Your task to perform on an android device: Search for 3d printer on AliExpress Image 0: 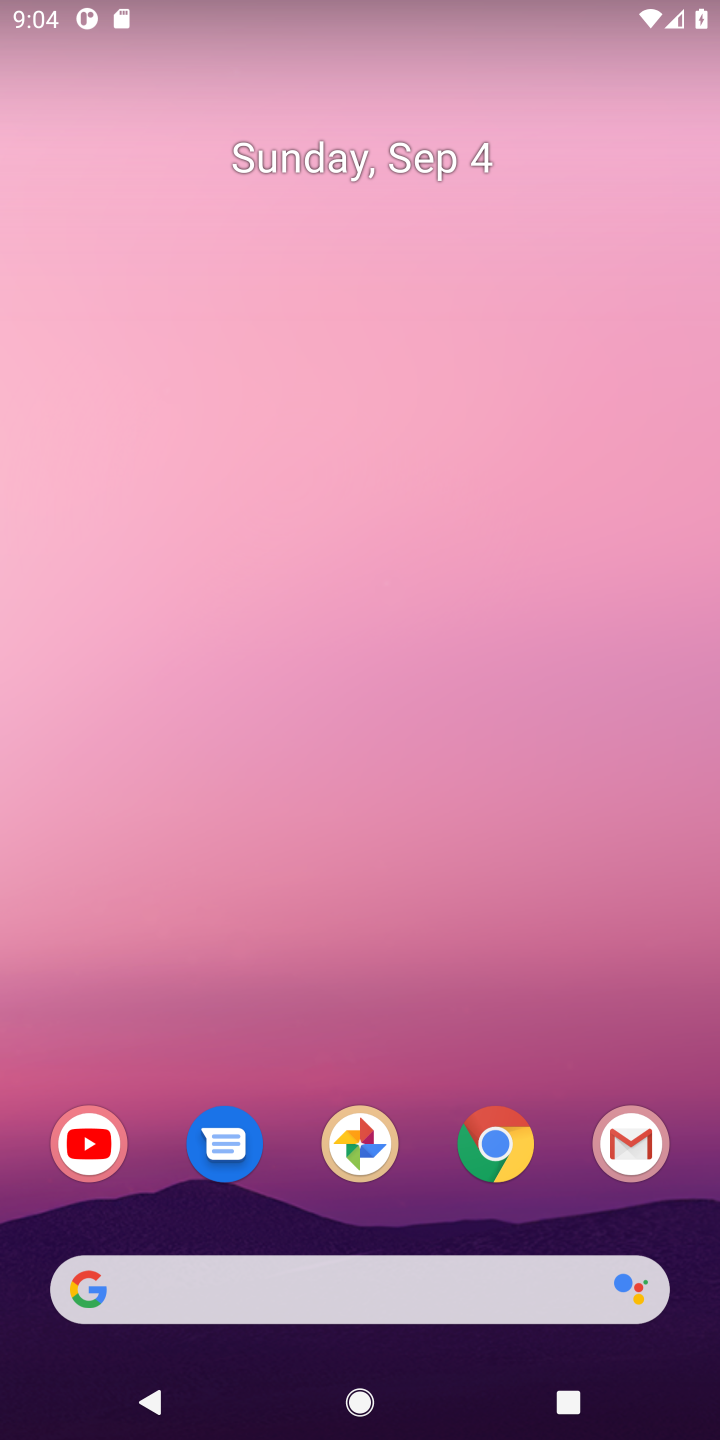
Step 0: press home button
Your task to perform on an android device: Search for 3d printer on AliExpress Image 1: 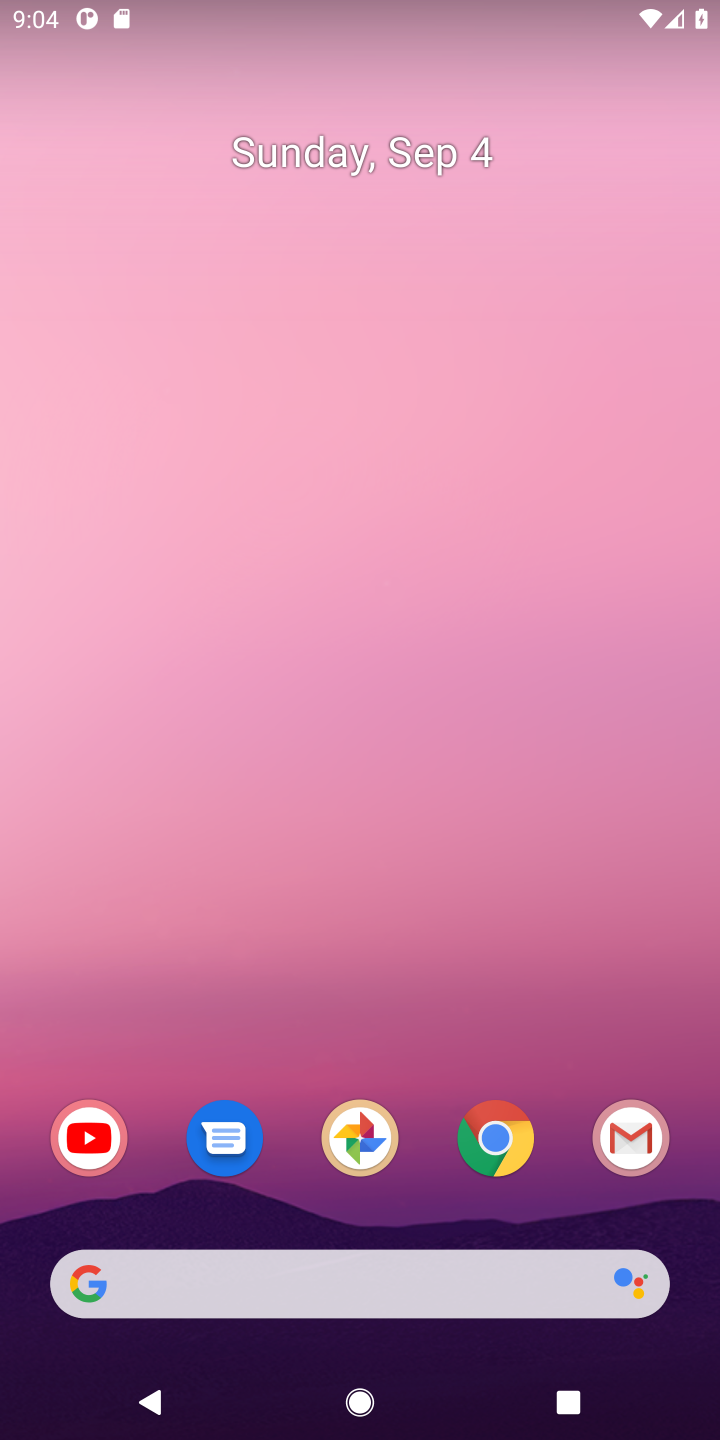
Step 1: drag from (426, 124) to (424, 48)
Your task to perform on an android device: Search for 3d printer on AliExpress Image 2: 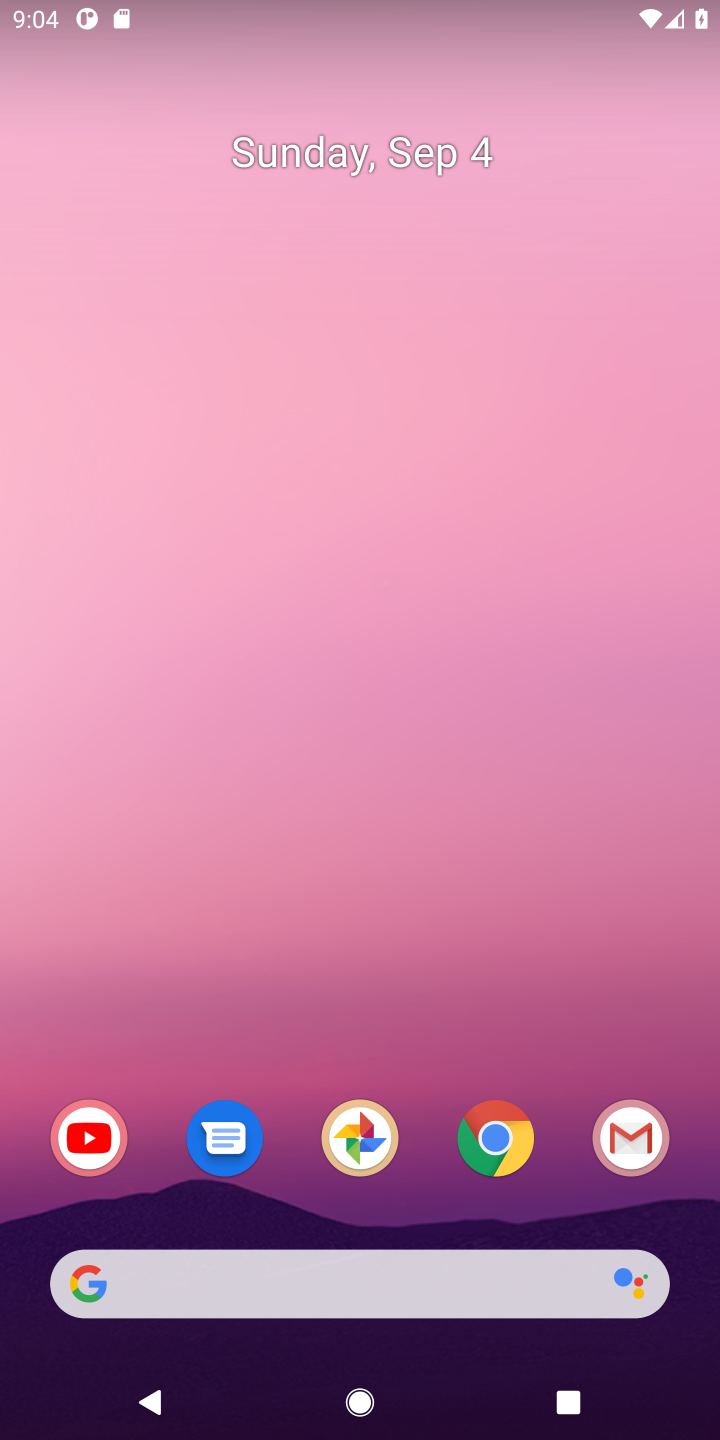
Step 2: drag from (434, 1073) to (546, 0)
Your task to perform on an android device: Search for 3d printer on AliExpress Image 3: 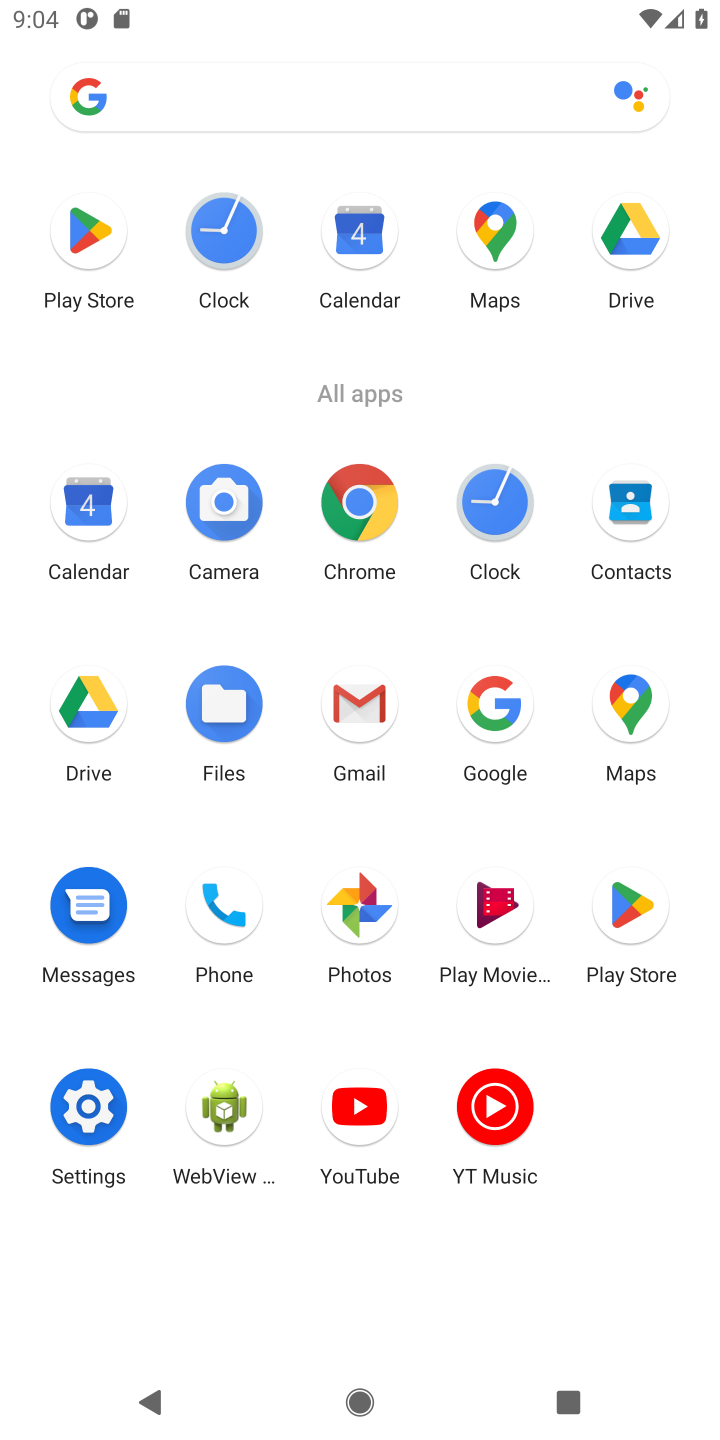
Step 3: click (352, 491)
Your task to perform on an android device: Search for 3d printer on AliExpress Image 4: 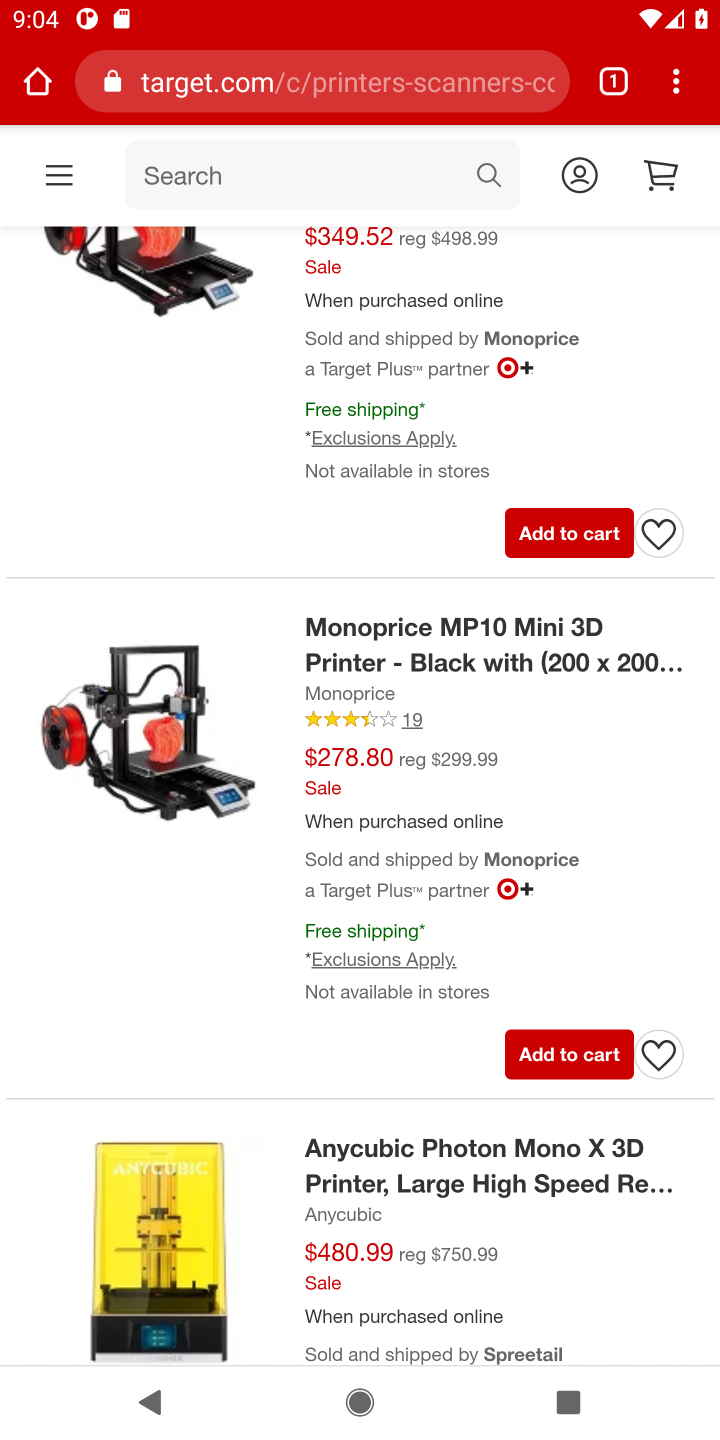
Step 4: click (612, 79)
Your task to perform on an android device: Search for 3d printer on AliExpress Image 5: 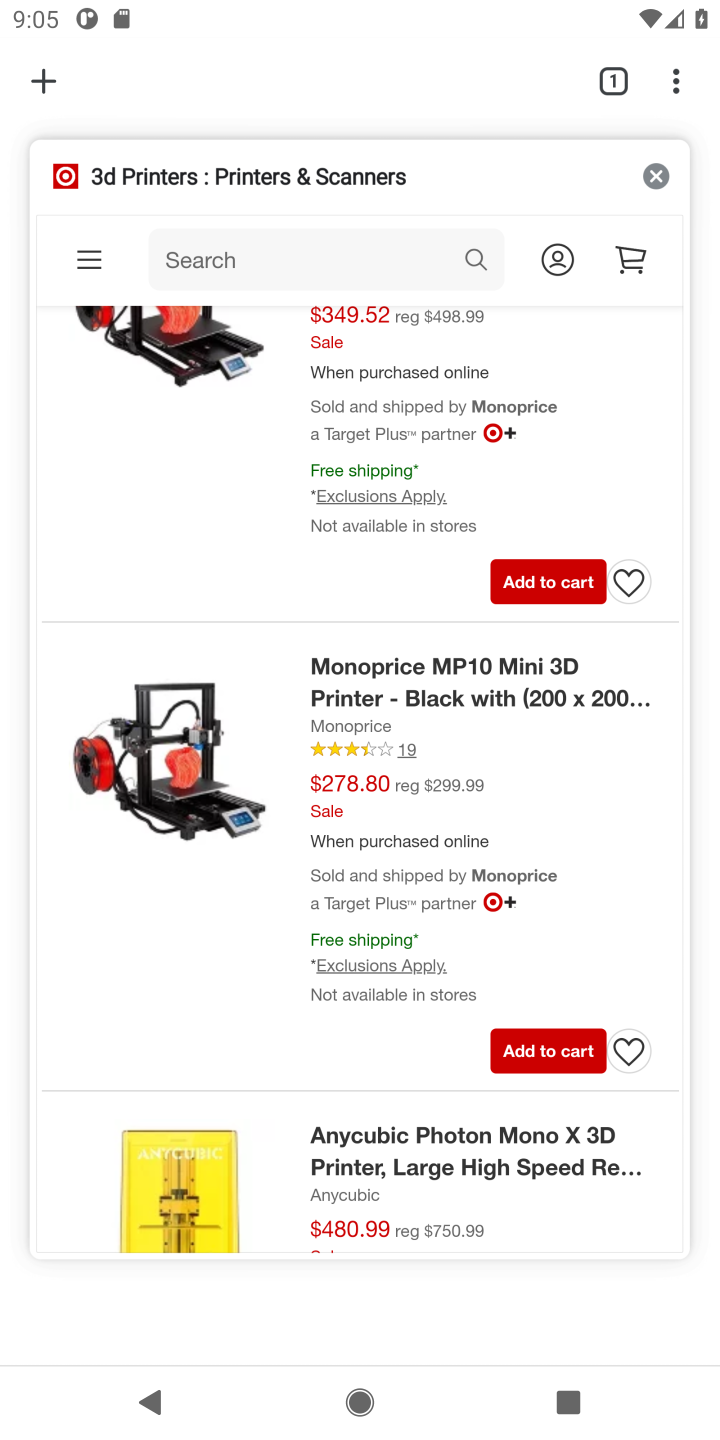
Step 5: click (51, 82)
Your task to perform on an android device: Search for 3d printer on AliExpress Image 6: 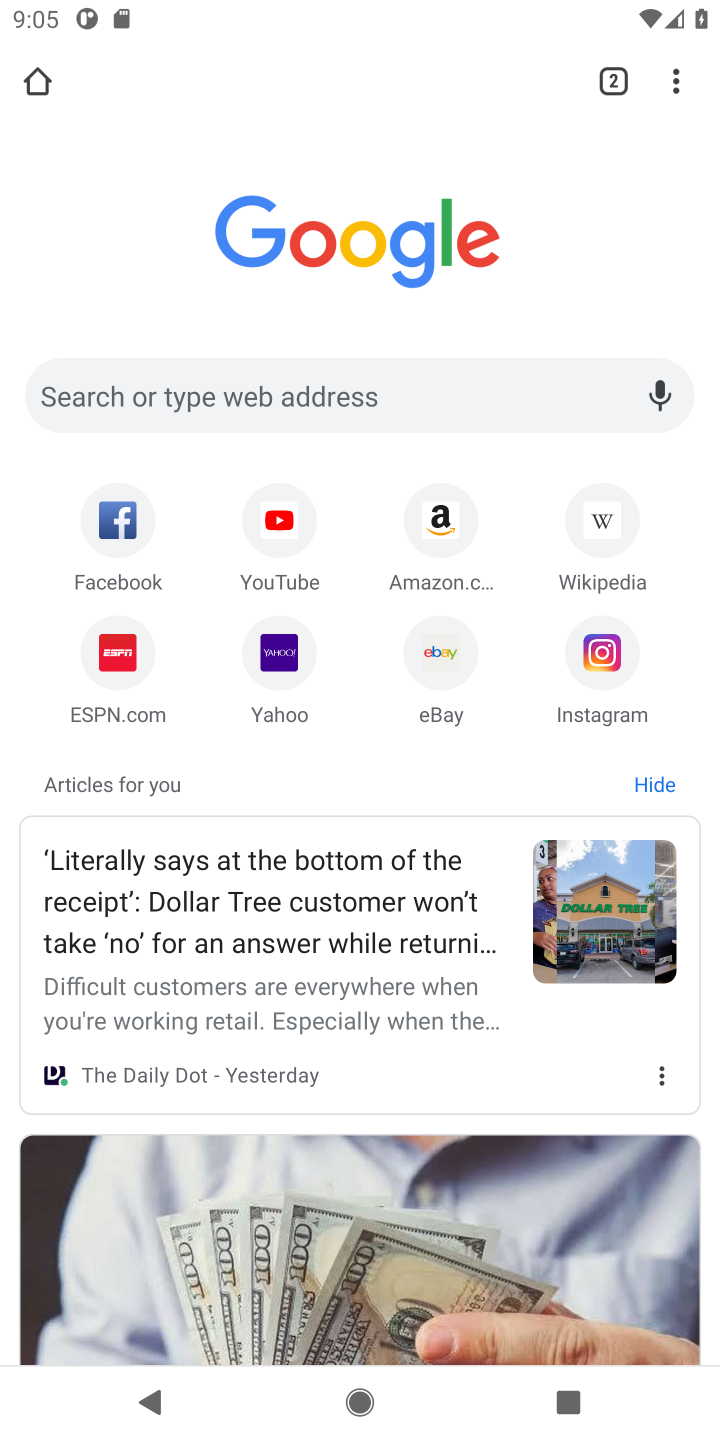
Step 6: click (201, 379)
Your task to perform on an android device: Search for 3d printer on AliExpress Image 7: 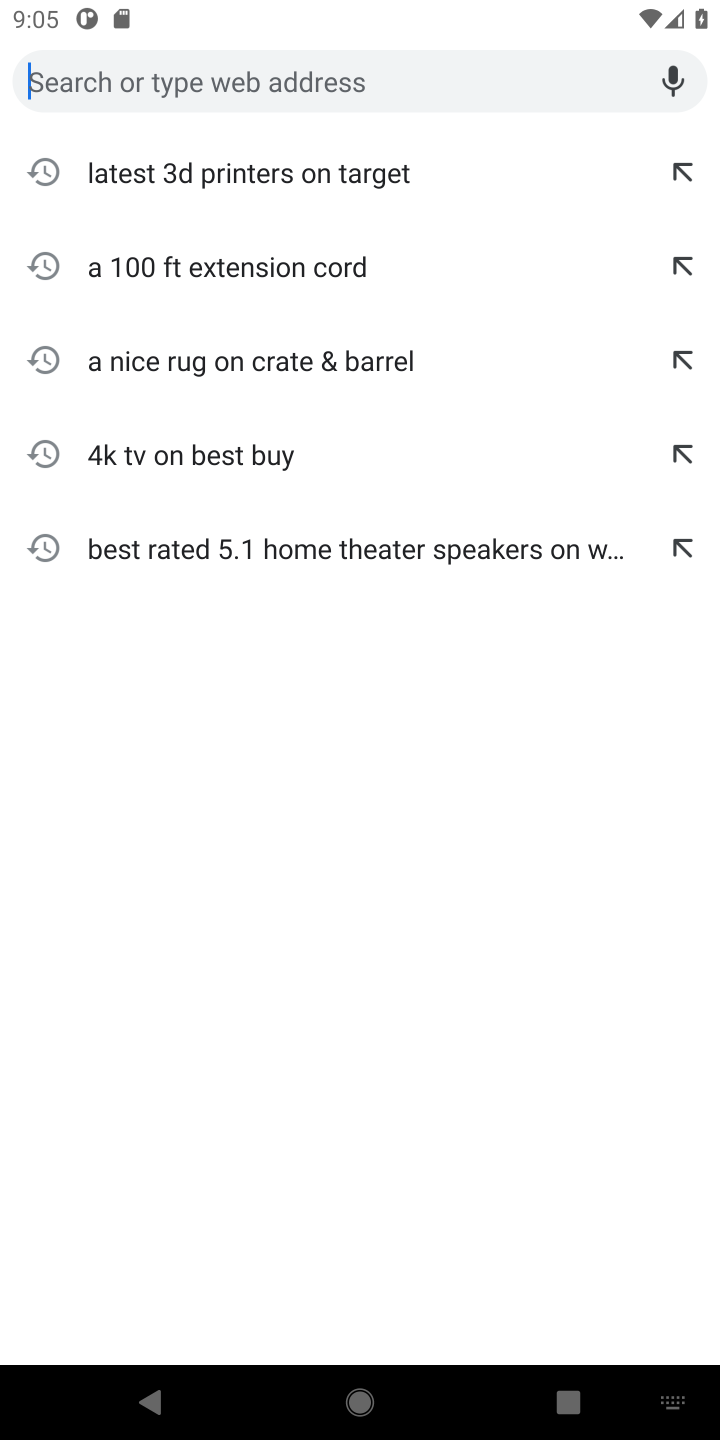
Step 7: click (157, 66)
Your task to perform on an android device: Search for 3d printer on AliExpress Image 8: 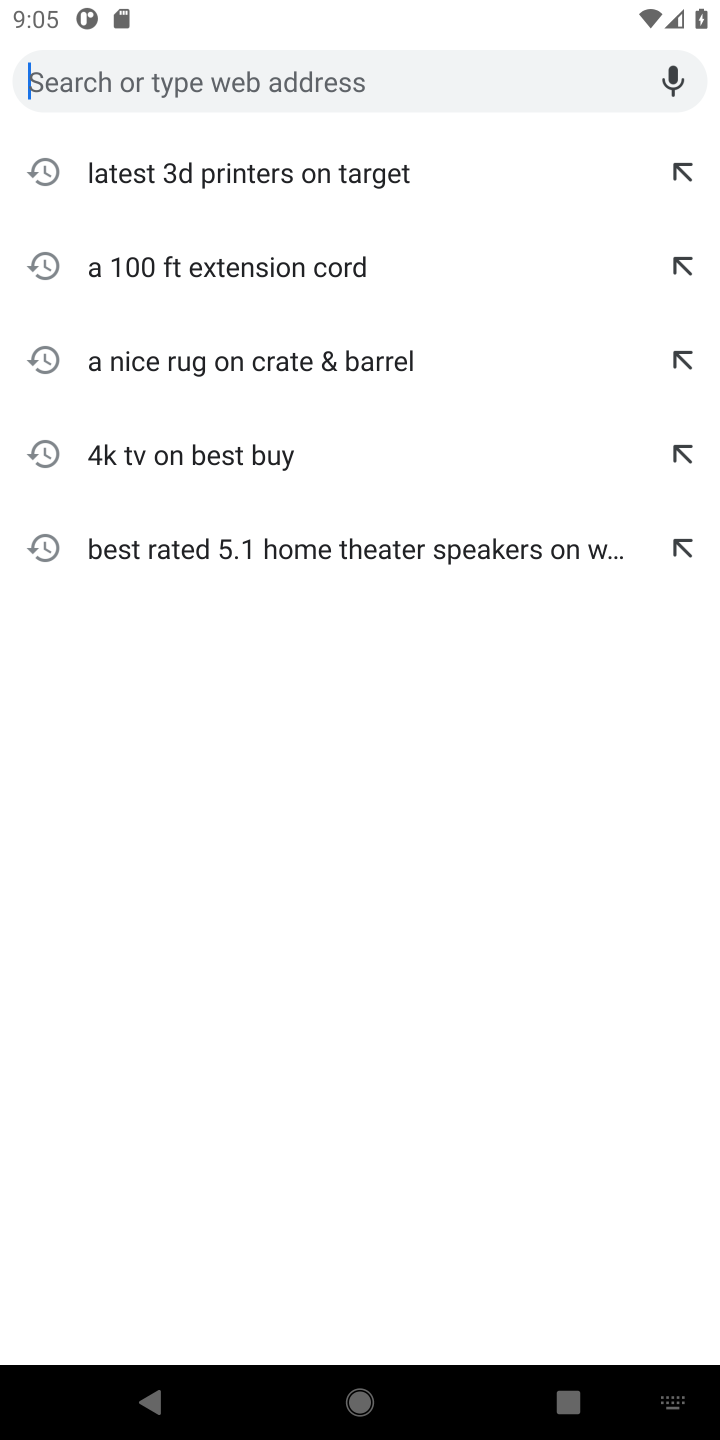
Step 8: type "3d printer on AliExpress"
Your task to perform on an android device: Search for 3d printer on AliExpress Image 9: 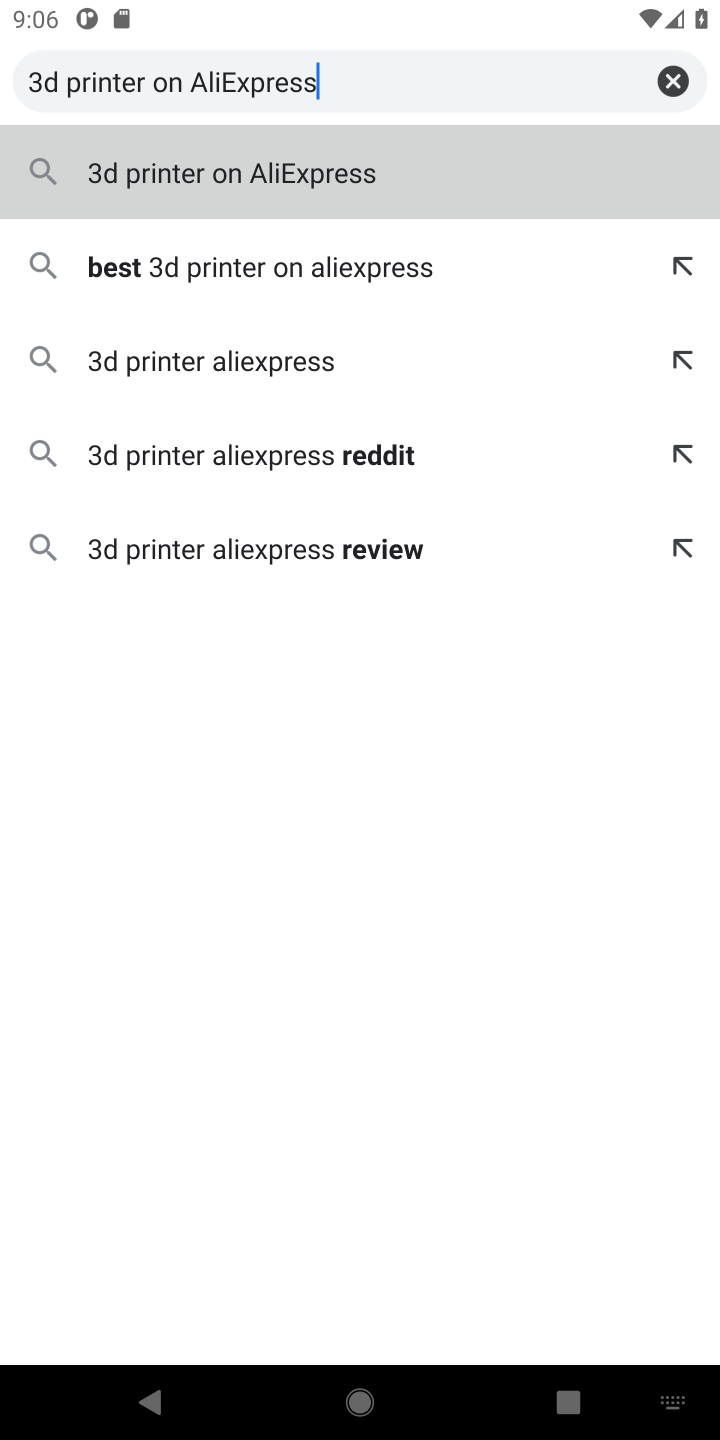
Step 9: click (281, 169)
Your task to perform on an android device: Search for 3d printer on AliExpress Image 10: 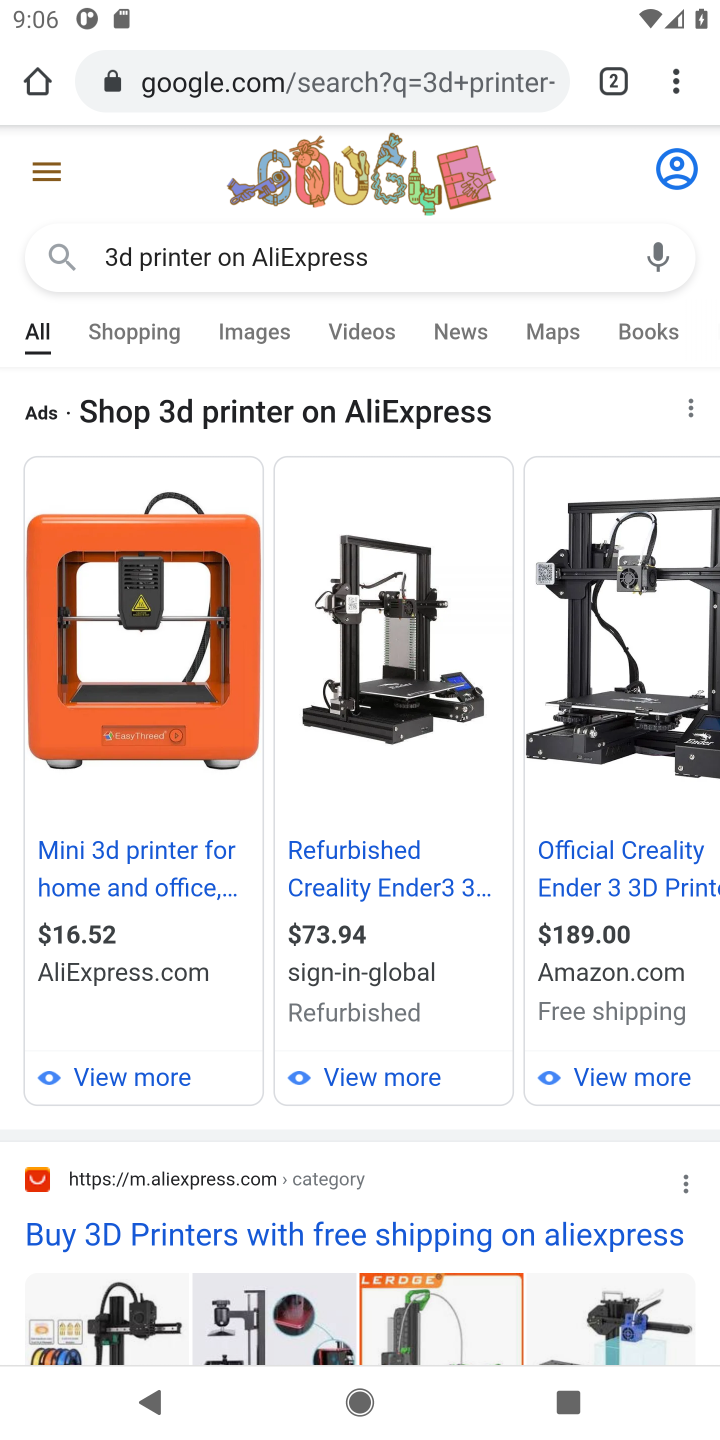
Step 10: click (460, 1239)
Your task to perform on an android device: Search for 3d printer on AliExpress Image 11: 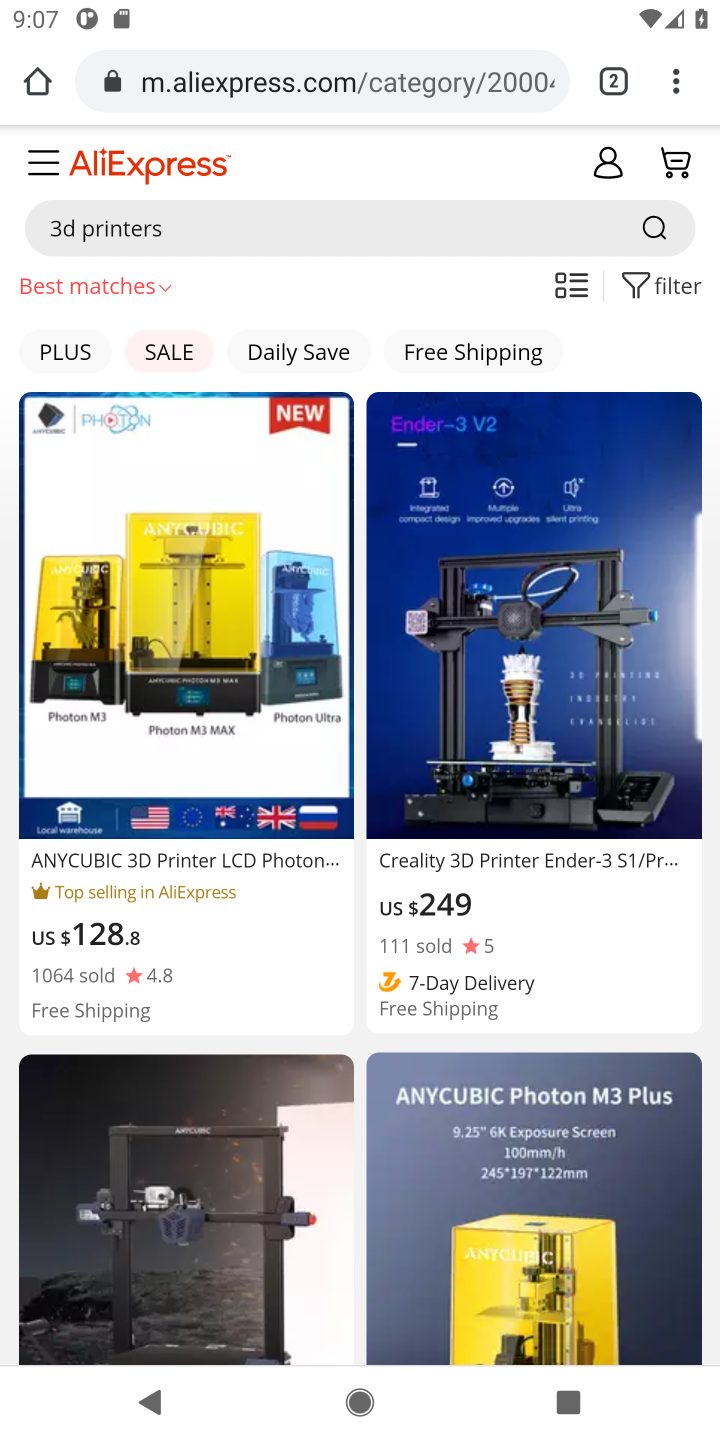
Step 11: drag from (352, 1020) to (342, 522)
Your task to perform on an android device: Search for 3d printer on AliExpress Image 12: 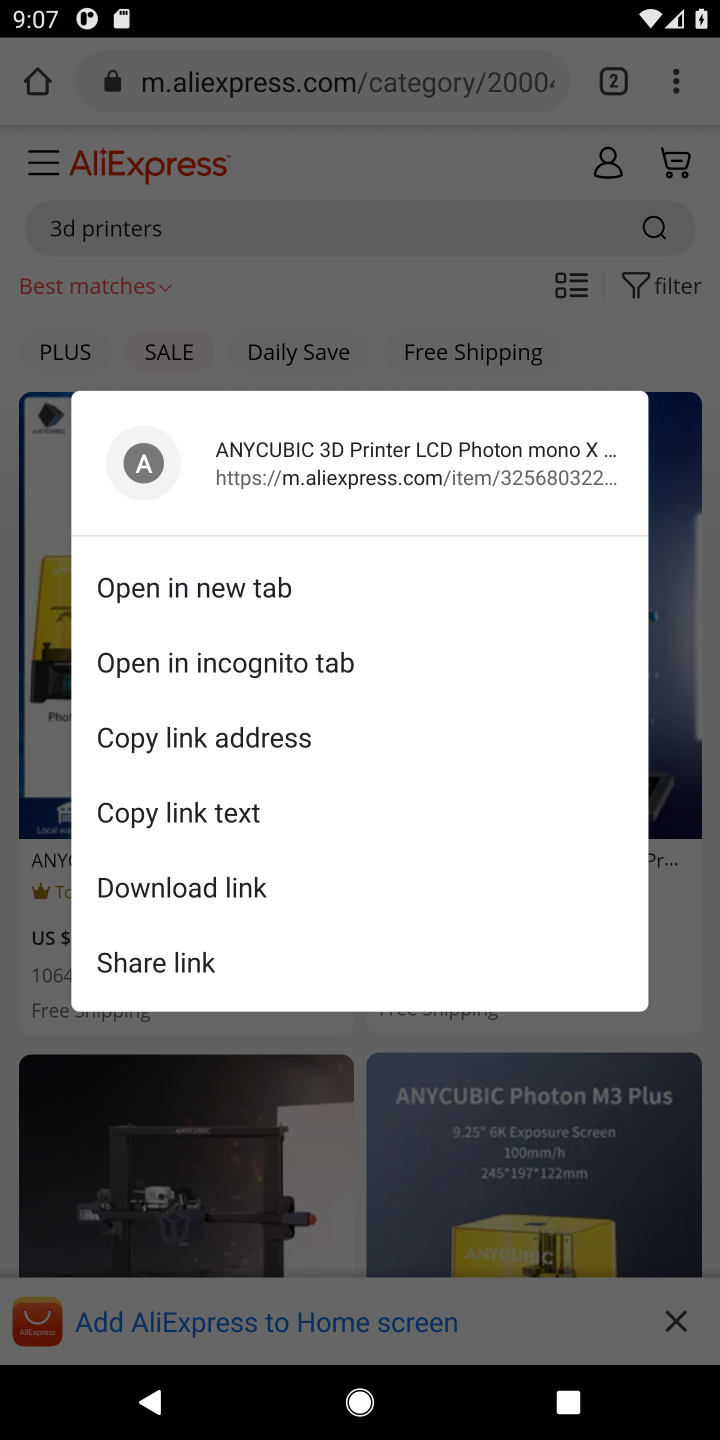
Step 12: click (431, 291)
Your task to perform on an android device: Search for 3d printer on AliExpress Image 13: 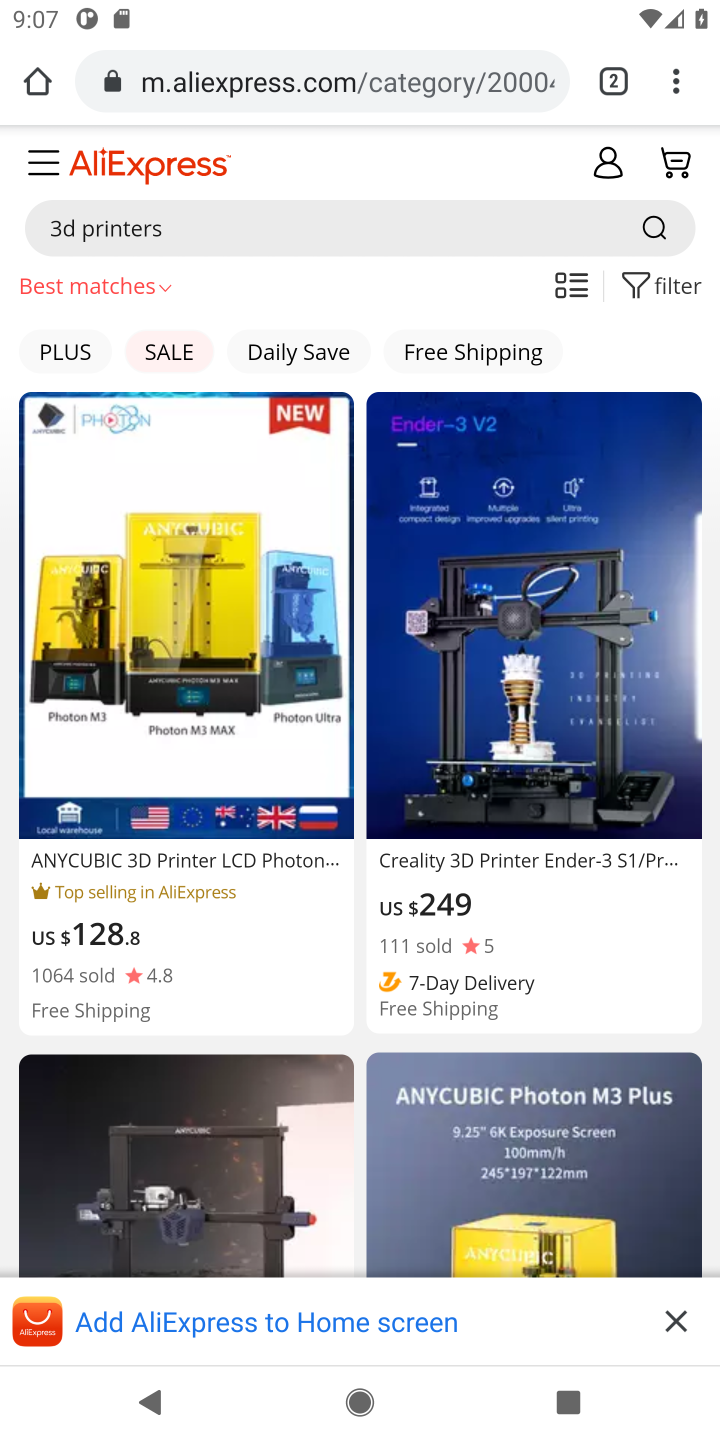
Step 13: drag from (384, 1013) to (413, 466)
Your task to perform on an android device: Search for 3d printer on AliExpress Image 14: 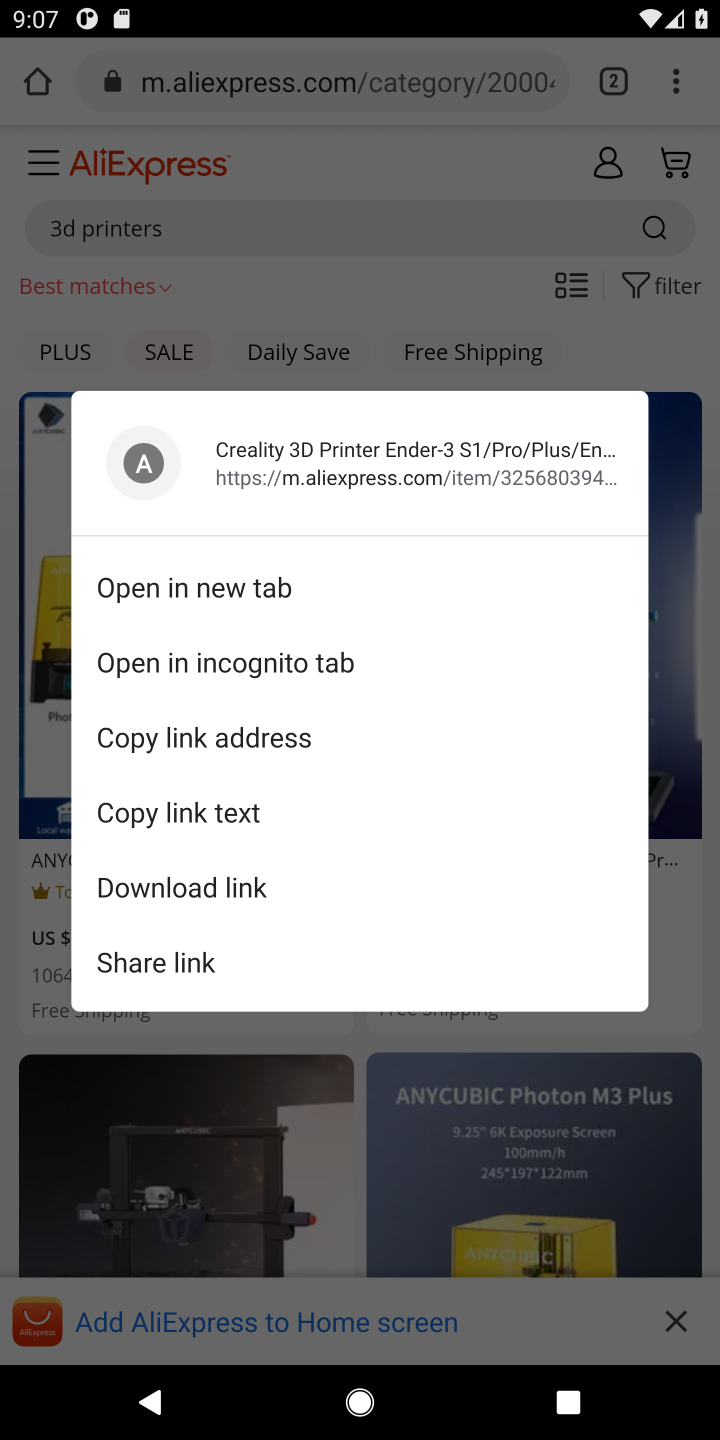
Step 14: click (411, 1165)
Your task to perform on an android device: Search for 3d printer on AliExpress Image 15: 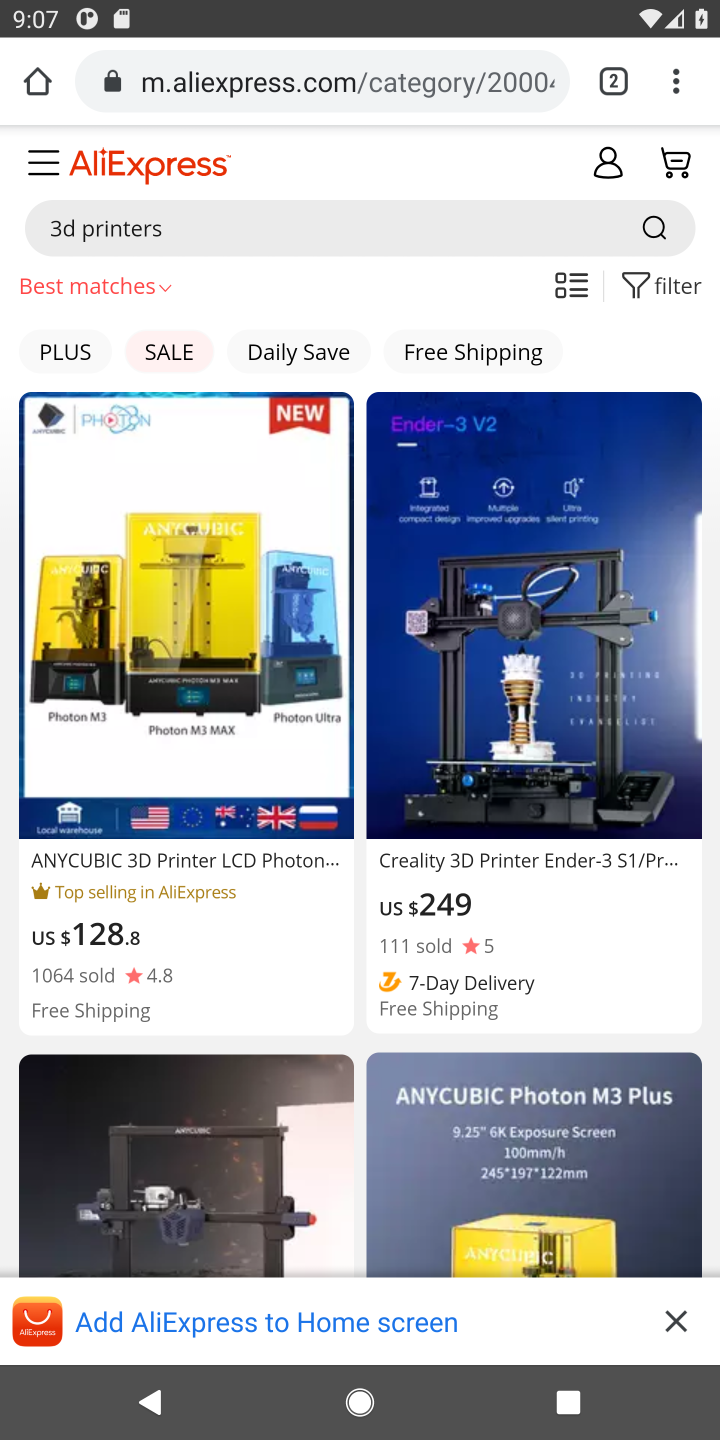
Step 15: click (669, 1330)
Your task to perform on an android device: Search for 3d printer on AliExpress Image 16: 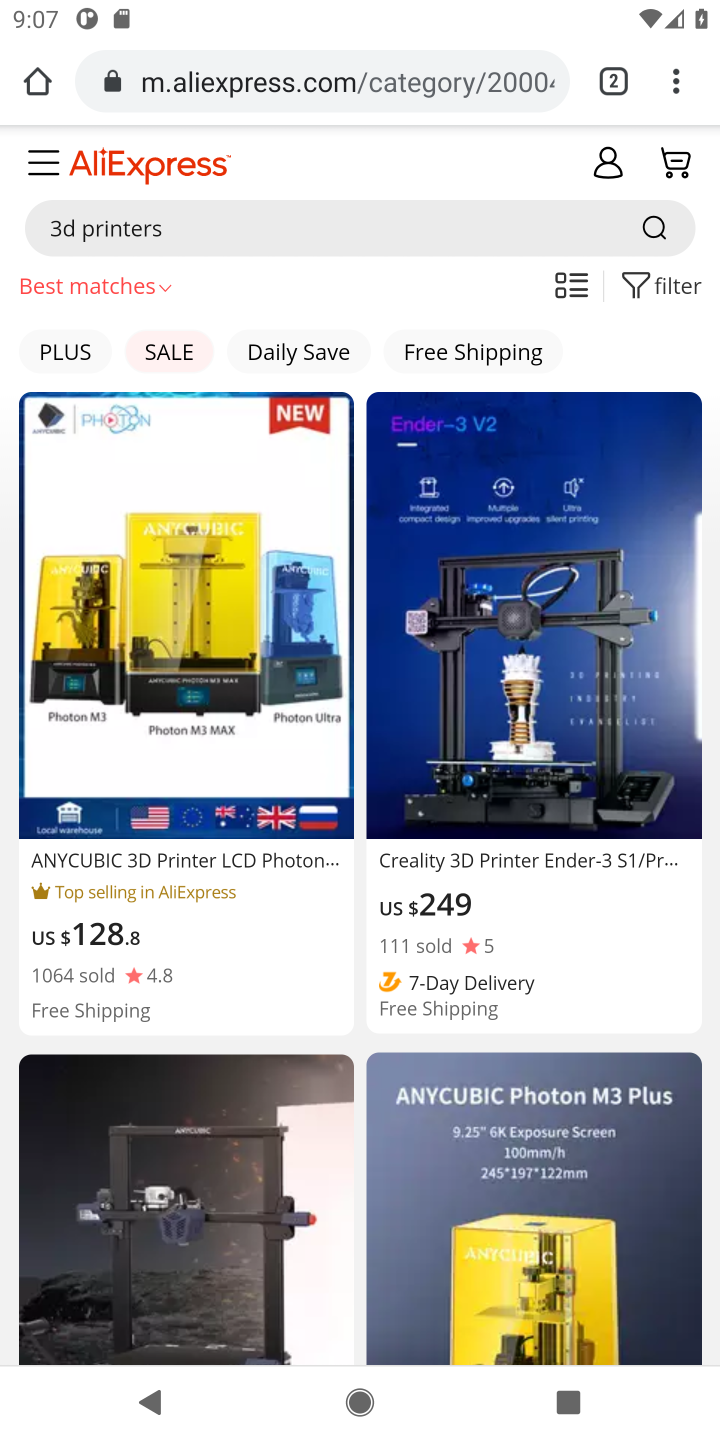
Step 16: drag from (379, 1055) to (357, 402)
Your task to perform on an android device: Search for 3d printer on AliExpress Image 17: 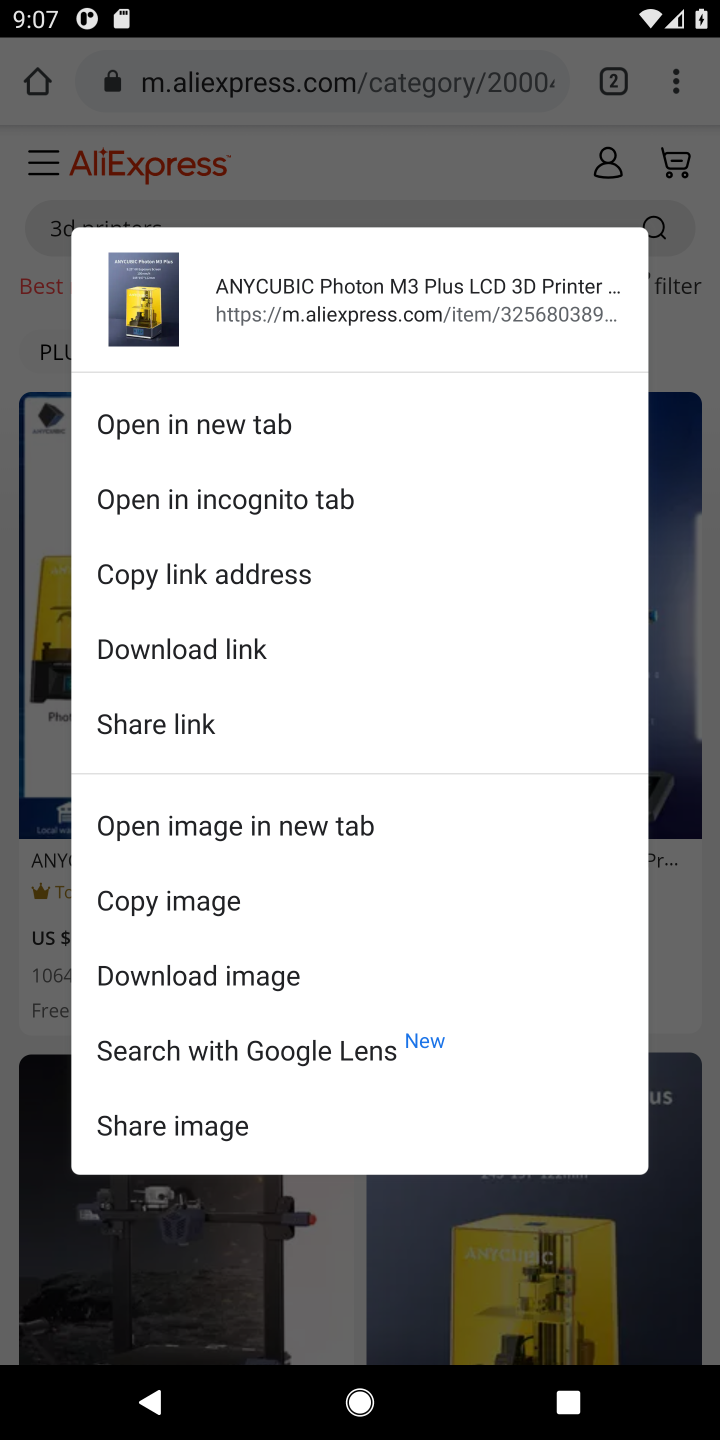
Step 17: click (244, 1321)
Your task to perform on an android device: Search for 3d printer on AliExpress Image 18: 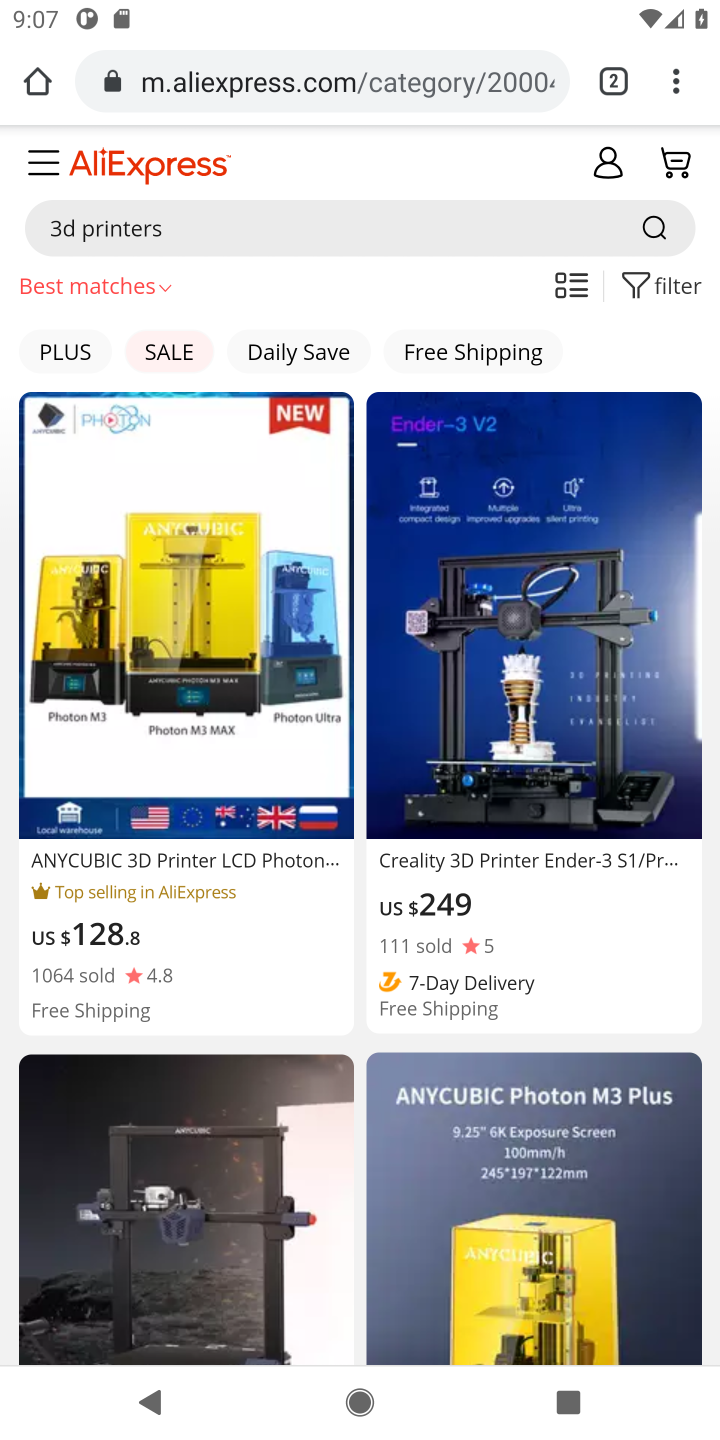
Step 18: task complete